Your task to perform on an android device: Search for sushi restaurants on Maps Image 0: 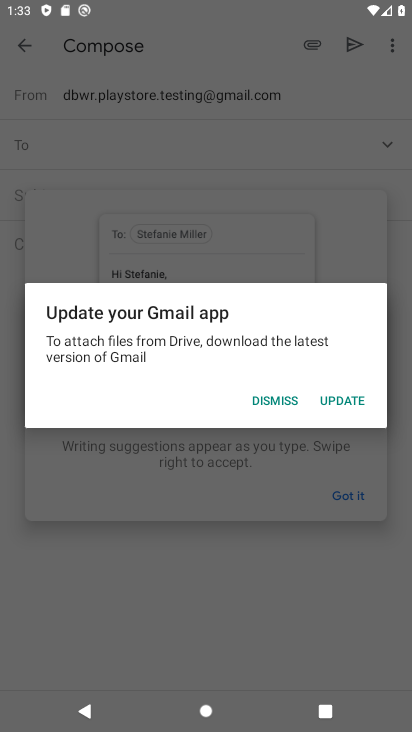
Step 0: press home button
Your task to perform on an android device: Search for sushi restaurants on Maps Image 1: 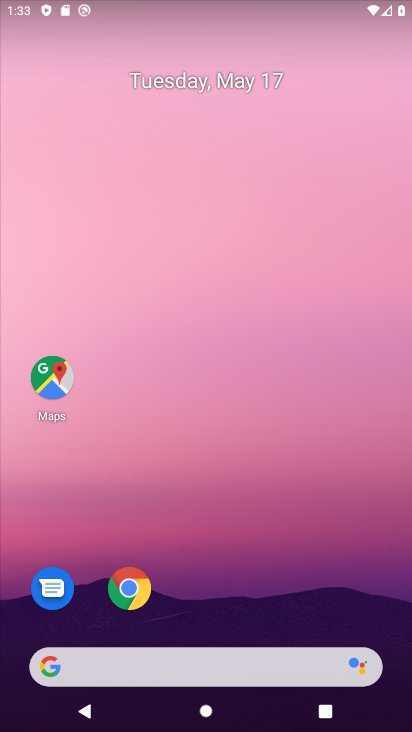
Step 1: click (48, 378)
Your task to perform on an android device: Search for sushi restaurants on Maps Image 2: 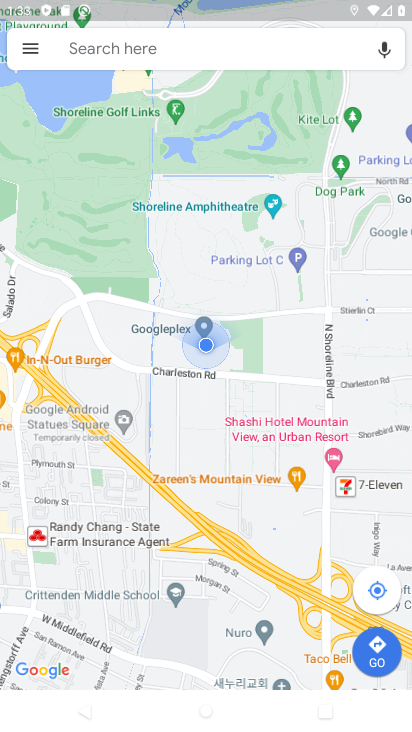
Step 2: click (185, 60)
Your task to perform on an android device: Search for sushi restaurants on Maps Image 3: 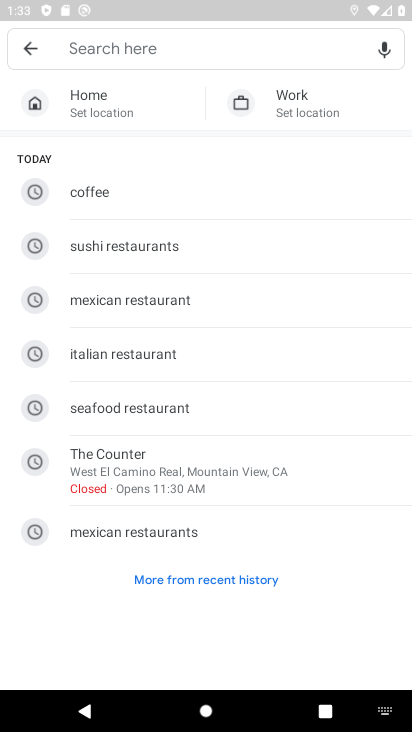
Step 3: click (138, 240)
Your task to perform on an android device: Search for sushi restaurants on Maps Image 4: 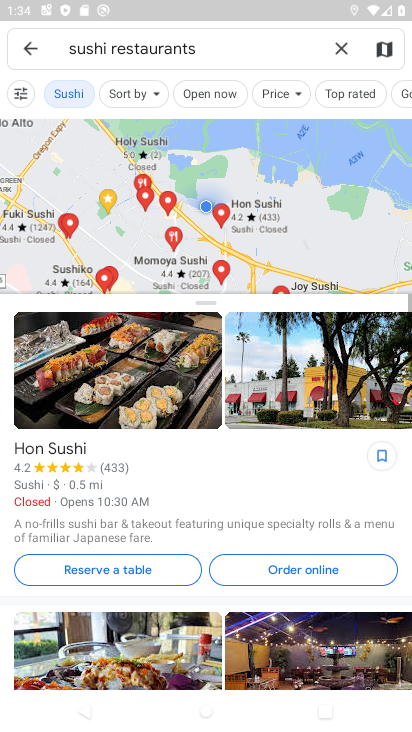
Step 4: task complete